Your task to perform on an android device: Open Google Chrome and open the bookmarks view Image 0: 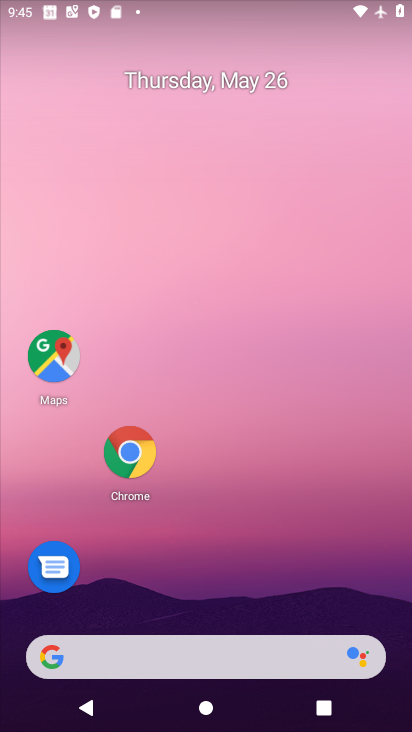
Step 0: click (138, 465)
Your task to perform on an android device: Open Google Chrome and open the bookmarks view Image 1: 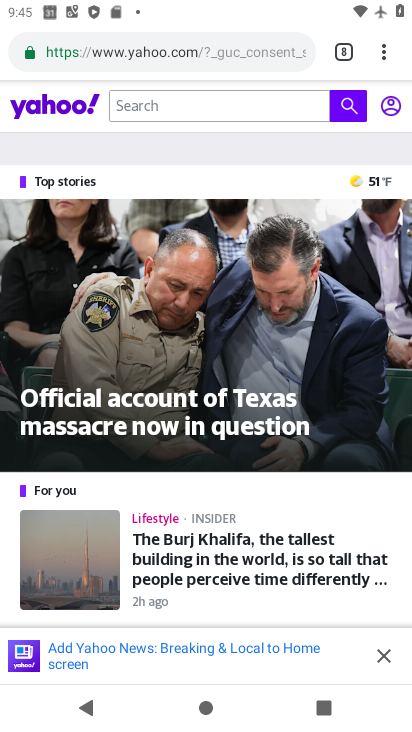
Step 1: task complete